Your task to perform on an android device: turn vacation reply on in the gmail app Image 0: 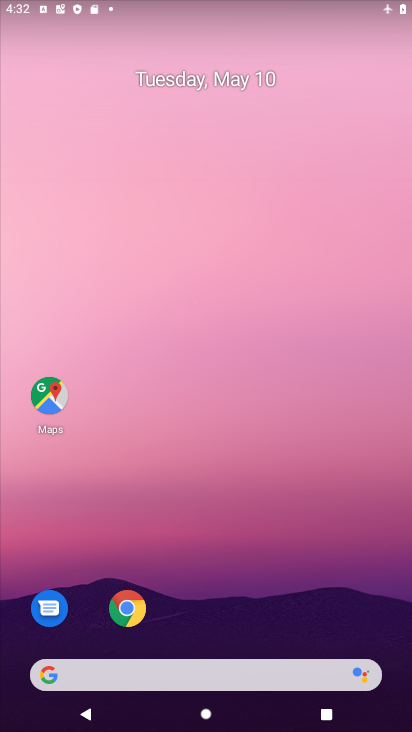
Step 0: drag from (379, 644) to (294, 75)
Your task to perform on an android device: turn vacation reply on in the gmail app Image 1: 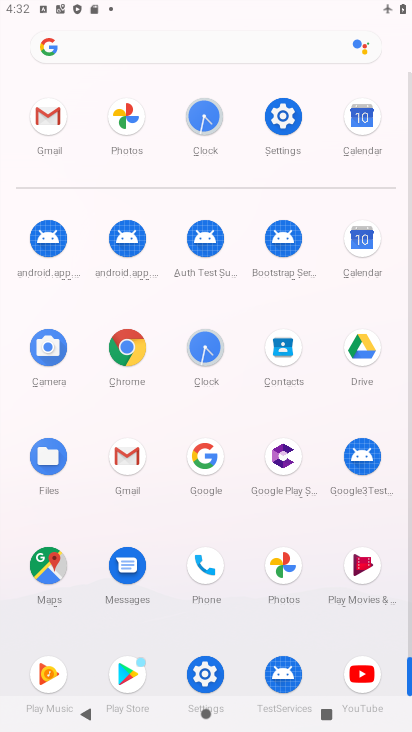
Step 1: click (124, 454)
Your task to perform on an android device: turn vacation reply on in the gmail app Image 2: 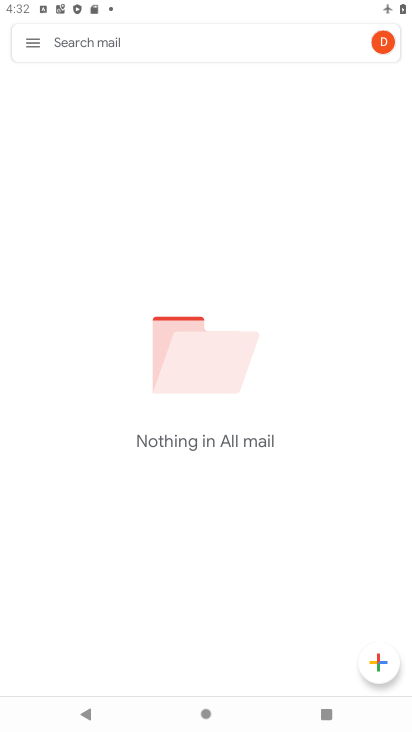
Step 2: click (30, 38)
Your task to perform on an android device: turn vacation reply on in the gmail app Image 3: 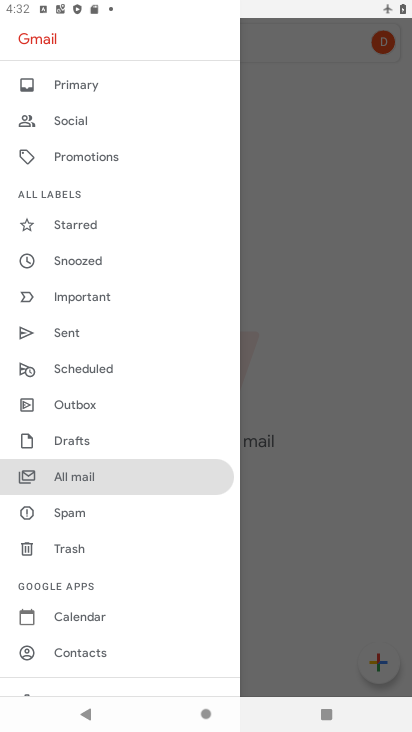
Step 3: drag from (117, 623) to (168, 119)
Your task to perform on an android device: turn vacation reply on in the gmail app Image 4: 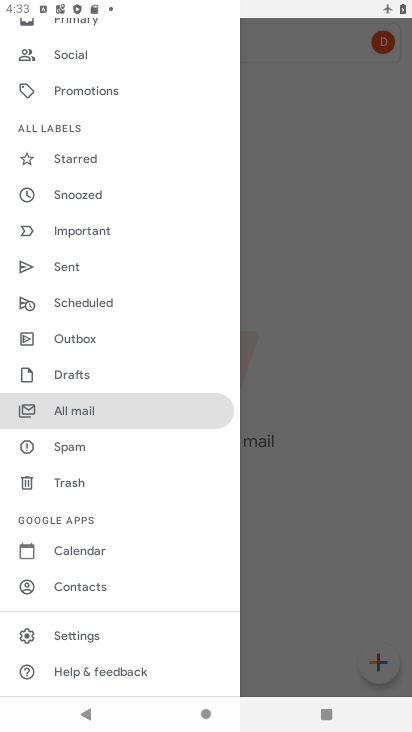
Step 4: click (75, 632)
Your task to perform on an android device: turn vacation reply on in the gmail app Image 5: 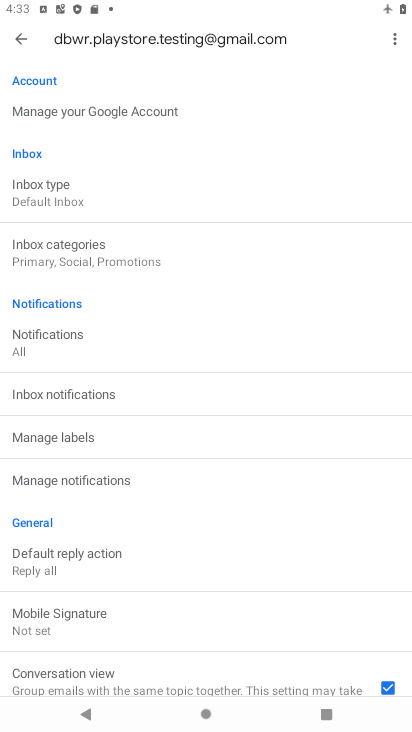
Step 5: drag from (218, 629) to (259, 248)
Your task to perform on an android device: turn vacation reply on in the gmail app Image 6: 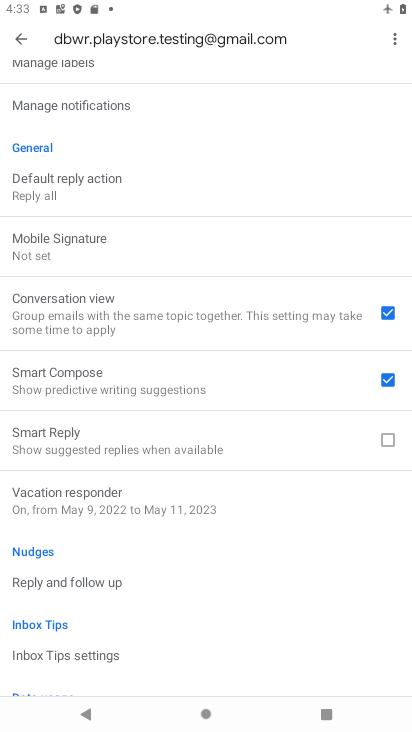
Step 6: click (134, 498)
Your task to perform on an android device: turn vacation reply on in the gmail app Image 7: 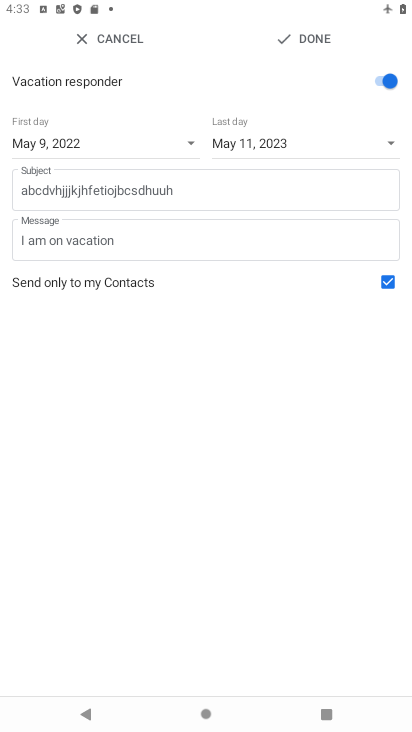
Step 7: task complete